Your task to perform on an android device: Go to display settings Image 0: 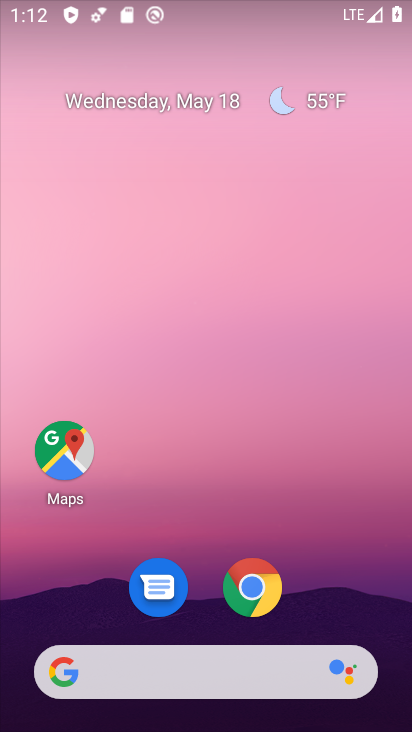
Step 0: drag from (201, 661) to (208, 247)
Your task to perform on an android device: Go to display settings Image 1: 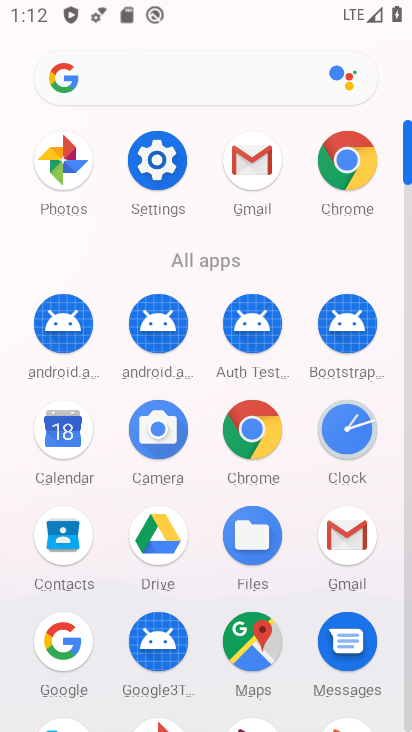
Step 1: click (155, 184)
Your task to perform on an android device: Go to display settings Image 2: 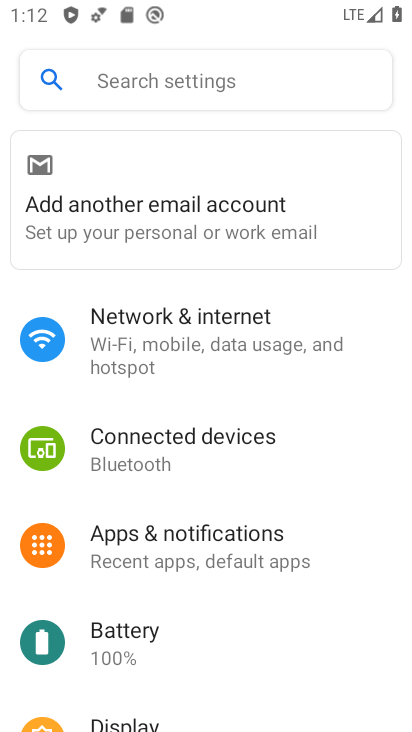
Step 2: drag from (135, 686) to (119, 317)
Your task to perform on an android device: Go to display settings Image 3: 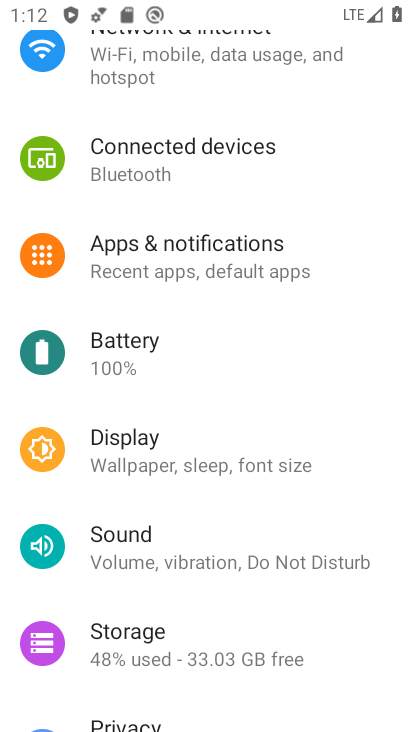
Step 3: click (135, 450)
Your task to perform on an android device: Go to display settings Image 4: 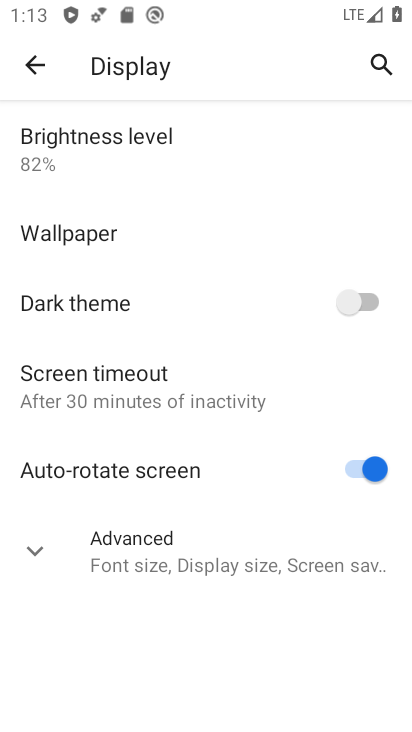
Step 4: task complete